Your task to perform on an android device: toggle airplane mode Image 0: 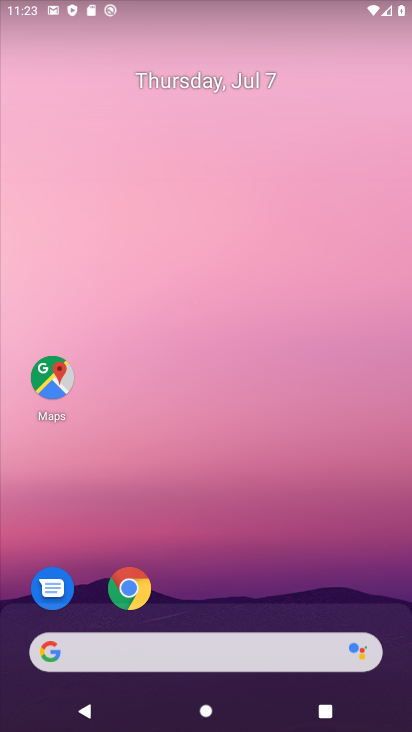
Step 0: press home button
Your task to perform on an android device: toggle airplane mode Image 1: 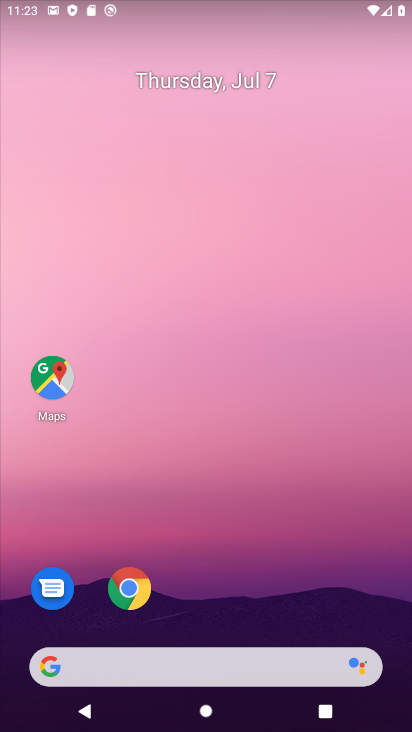
Step 1: drag from (298, 157) to (321, 74)
Your task to perform on an android device: toggle airplane mode Image 2: 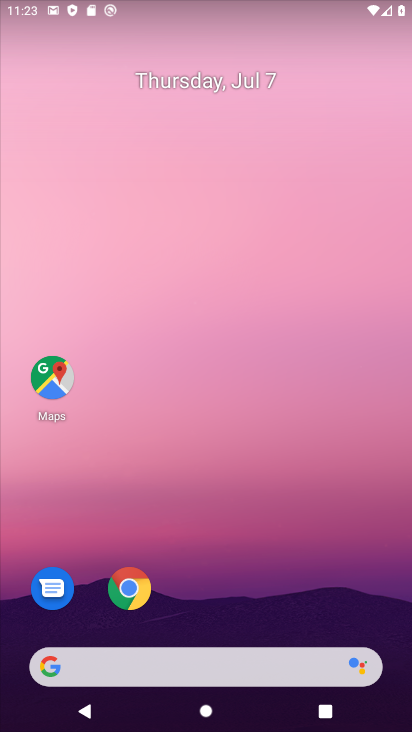
Step 2: drag from (321, 6) to (313, 395)
Your task to perform on an android device: toggle airplane mode Image 3: 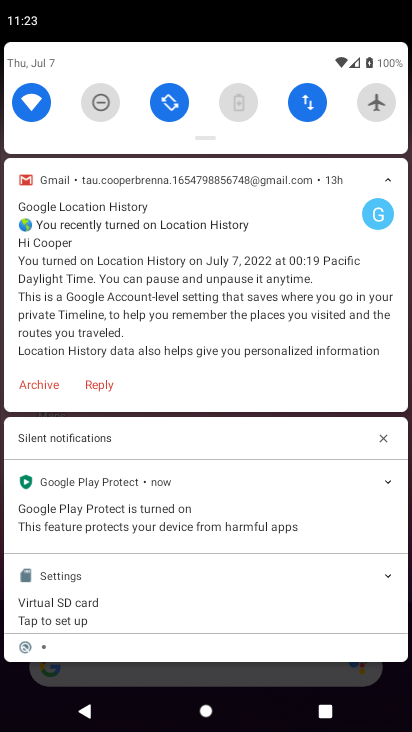
Step 3: click (375, 105)
Your task to perform on an android device: toggle airplane mode Image 4: 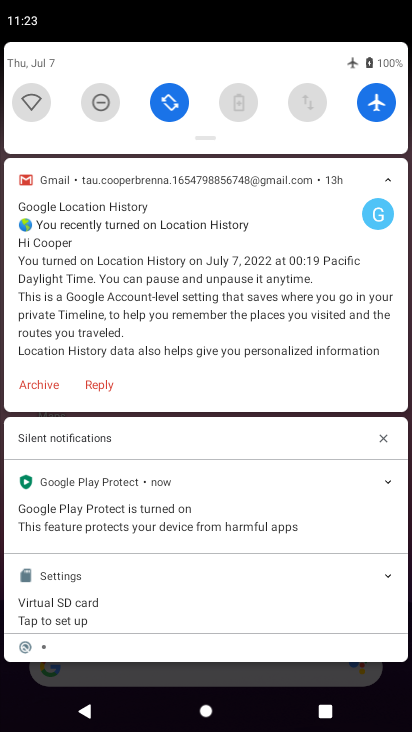
Step 4: task complete